Your task to perform on an android device: turn off sleep mode Image 0: 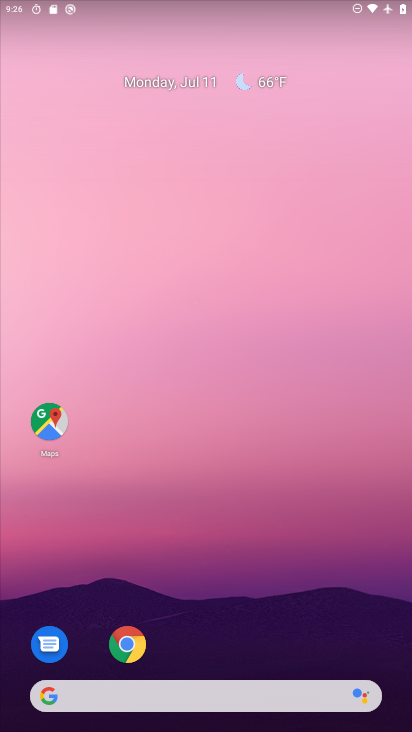
Step 0: drag from (323, 610) to (270, 100)
Your task to perform on an android device: turn off sleep mode Image 1: 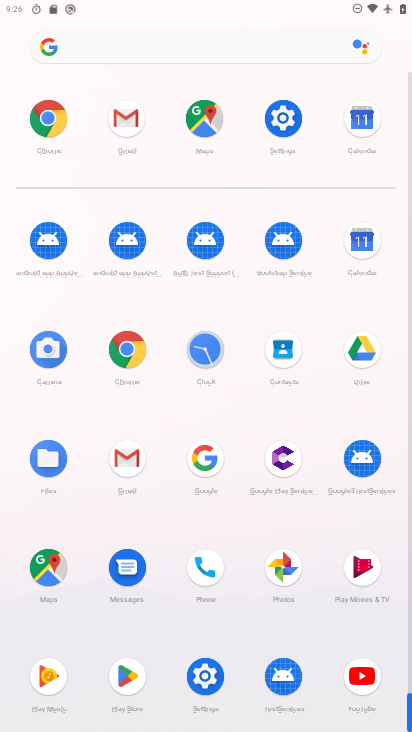
Step 1: click (284, 109)
Your task to perform on an android device: turn off sleep mode Image 2: 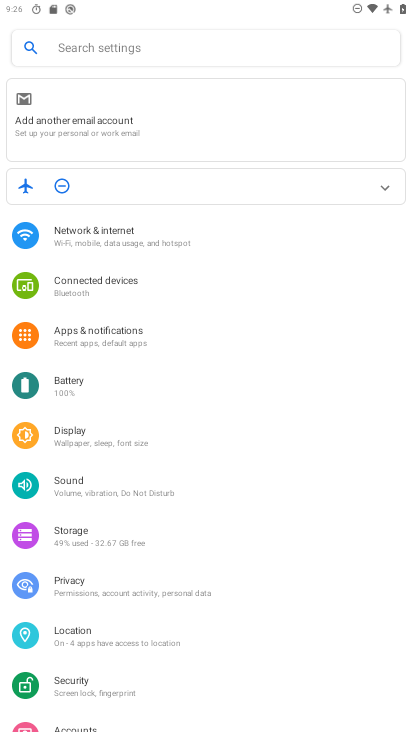
Step 2: click (84, 435)
Your task to perform on an android device: turn off sleep mode Image 3: 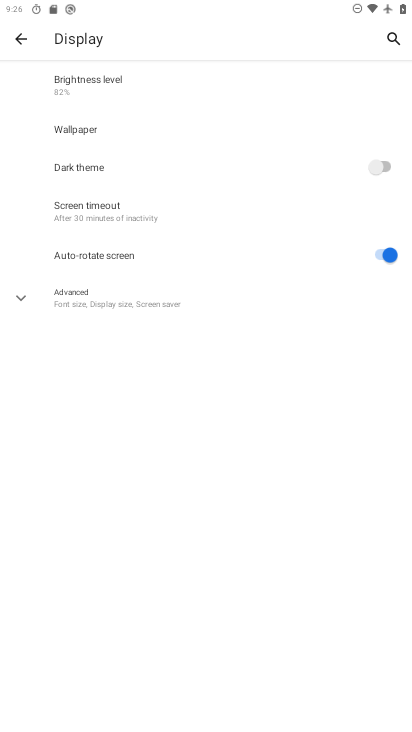
Step 3: task complete